Your task to perform on an android device: Open Yahoo.com Image 0: 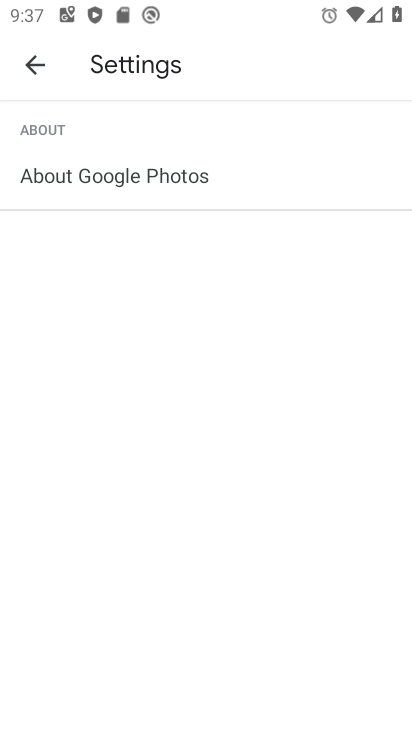
Step 0: press home button
Your task to perform on an android device: Open Yahoo.com Image 1: 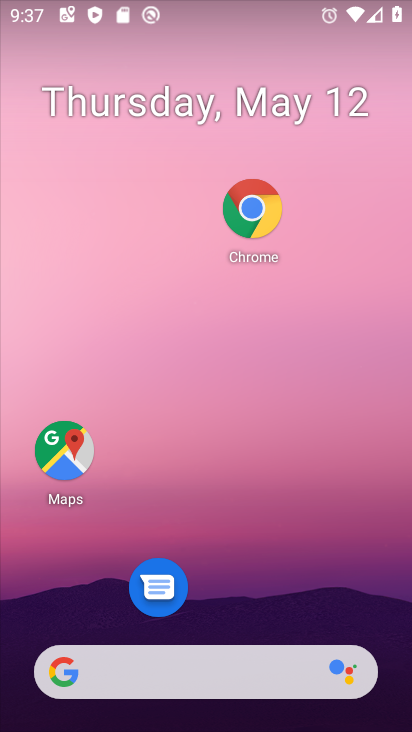
Step 1: drag from (305, 598) to (334, 240)
Your task to perform on an android device: Open Yahoo.com Image 2: 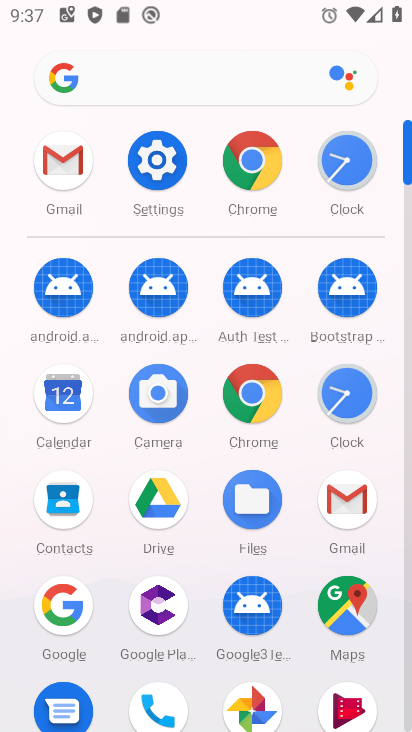
Step 2: click (236, 170)
Your task to perform on an android device: Open Yahoo.com Image 3: 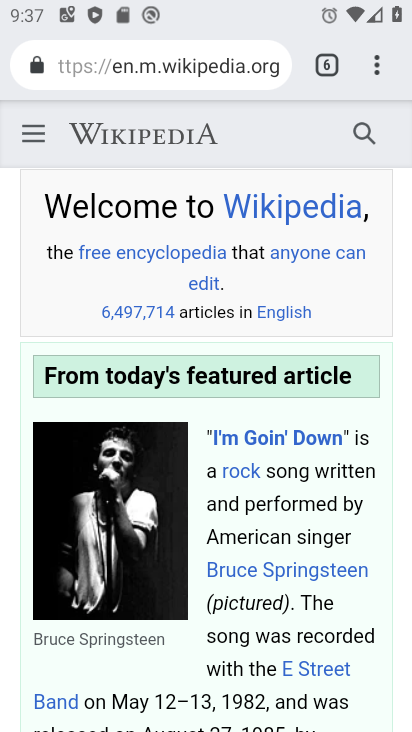
Step 3: click (356, 62)
Your task to perform on an android device: Open Yahoo.com Image 4: 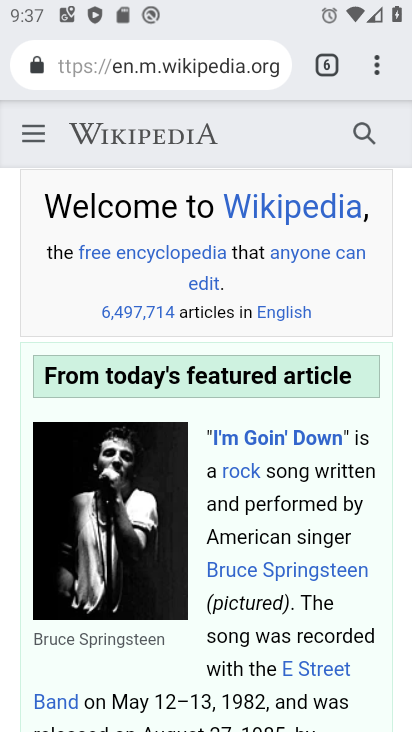
Step 4: click (360, 62)
Your task to perform on an android device: Open Yahoo.com Image 5: 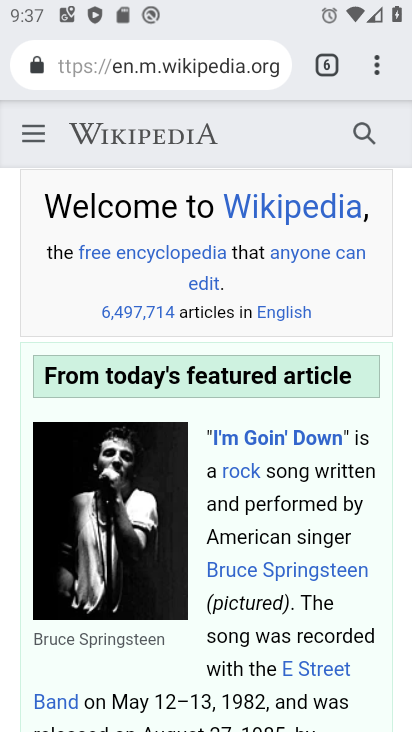
Step 5: click (360, 67)
Your task to perform on an android device: Open Yahoo.com Image 6: 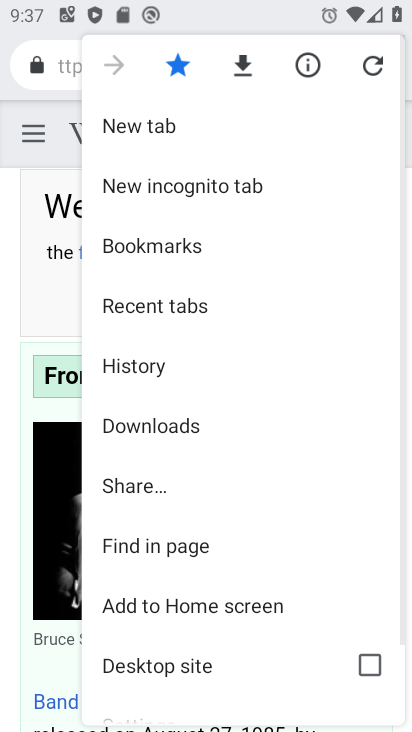
Step 6: click (130, 132)
Your task to perform on an android device: Open Yahoo.com Image 7: 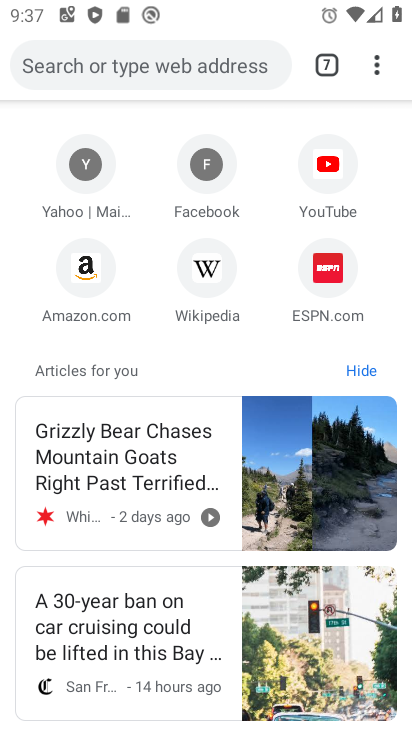
Step 7: click (68, 153)
Your task to perform on an android device: Open Yahoo.com Image 8: 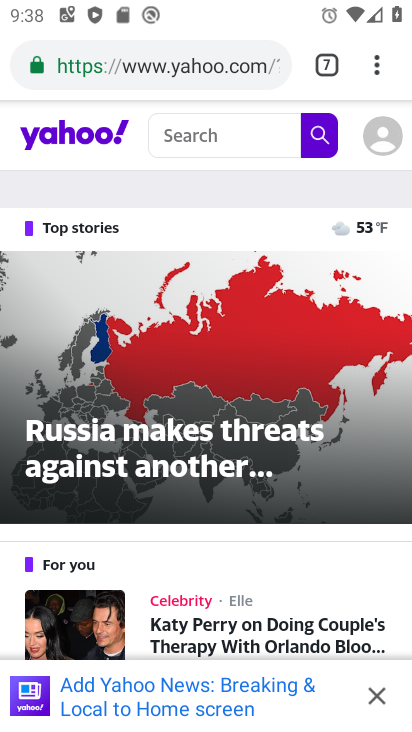
Step 8: task complete